Your task to perform on an android device: show emergency info Image 0: 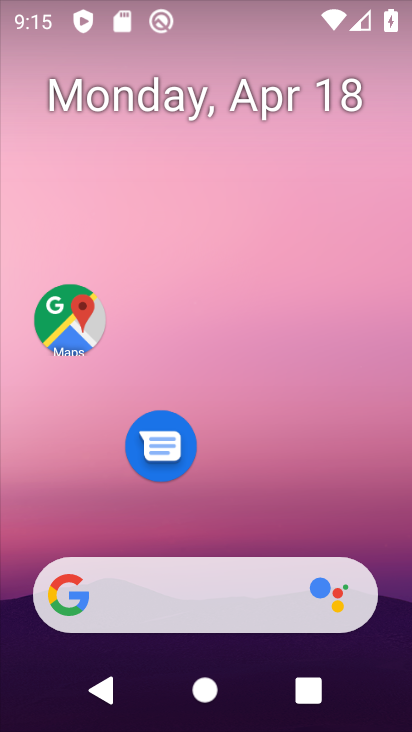
Step 0: drag from (220, 533) to (220, 5)
Your task to perform on an android device: show emergency info Image 1: 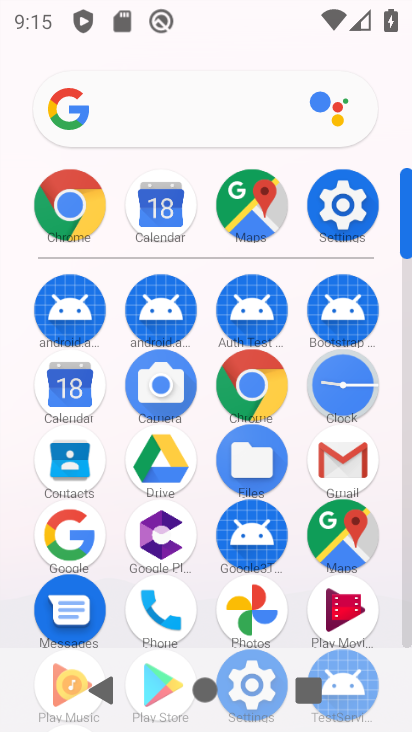
Step 1: click (345, 200)
Your task to perform on an android device: show emergency info Image 2: 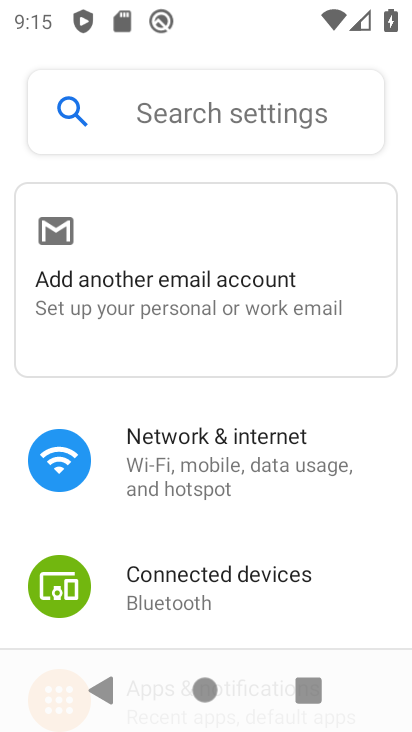
Step 2: drag from (236, 578) to (232, 112)
Your task to perform on an android device: show emergency info Image 3: 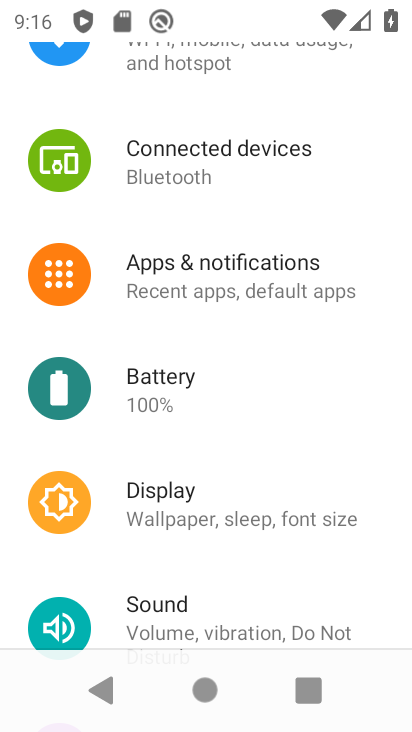
Step 3: drag from (214, 622) to (205, 134)
Your task to perform on an android device: show emergency info Image 4: 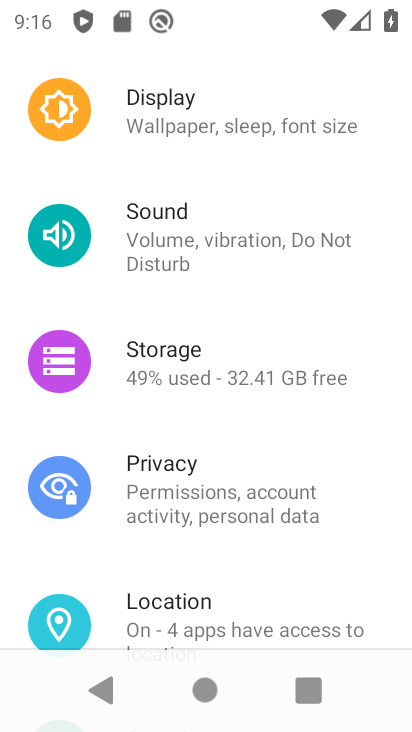
Step 4: drag from (236, 608) to (259, 99)
Your task to perform on an android device: show emergency info Image 5: 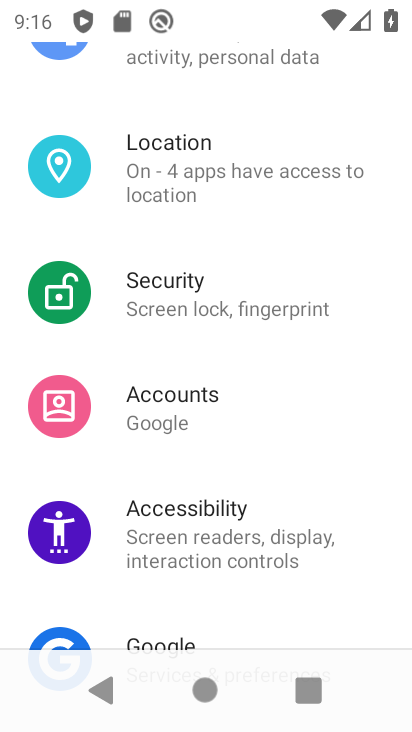
Step 5: drag from (207, 604) to (204, 138)
Your task to perform on an android device: show emergency info Image 6: 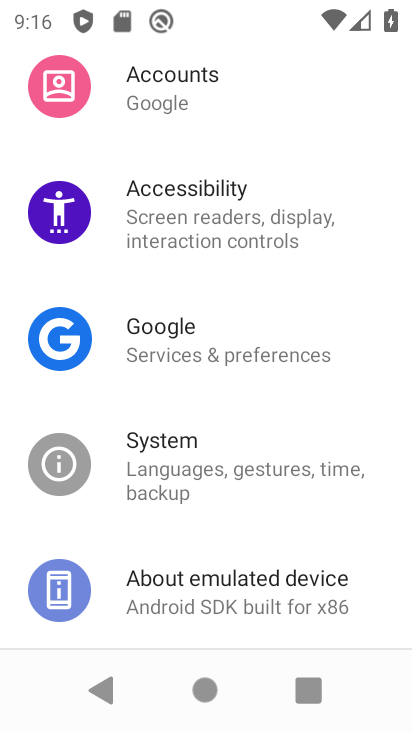
Step 6: click (200, 592)
Your task to perform on an android device: show emergency info Image 7: 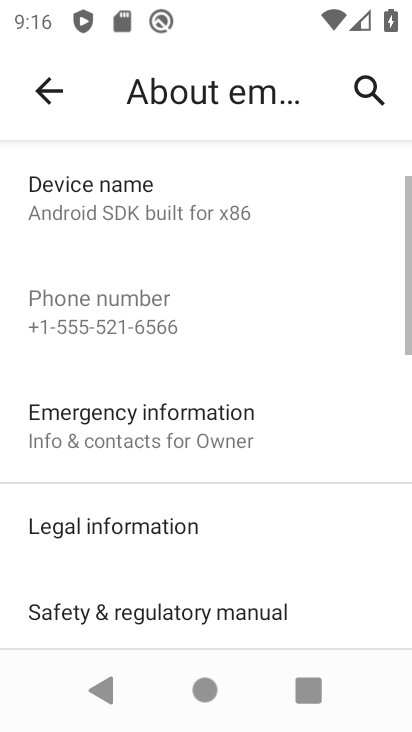
Step 7: click (226, 429)
Your task to perform on an android device: show emergency info Image 8: 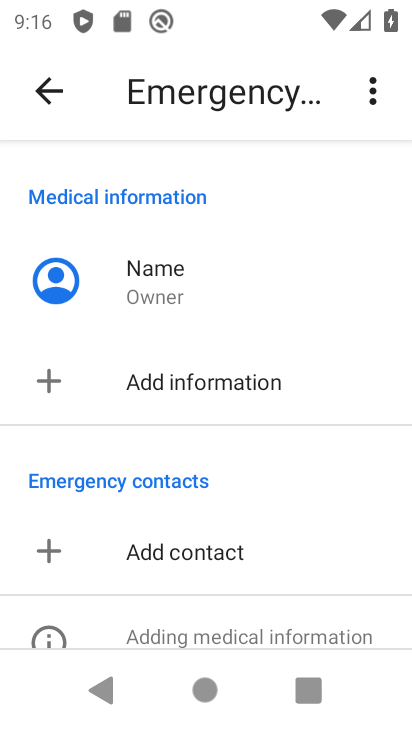
Step 8: task complete